Your task to perform on an android device: Do I have any events this weekend? Image 0: 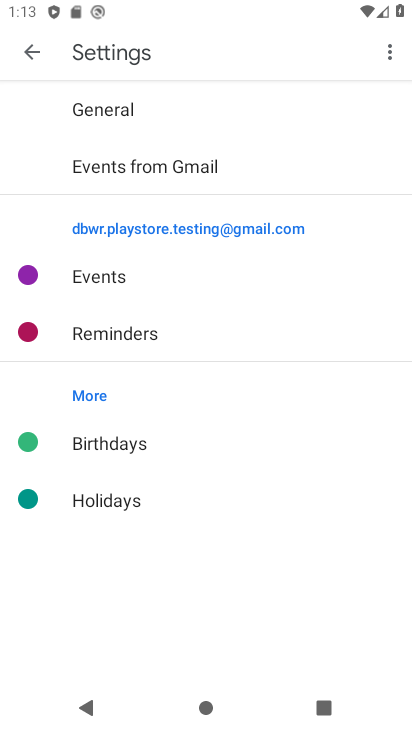
Step 0: press home button
Your task to perform on an android device: Do I have any events this weekend? Image 1: 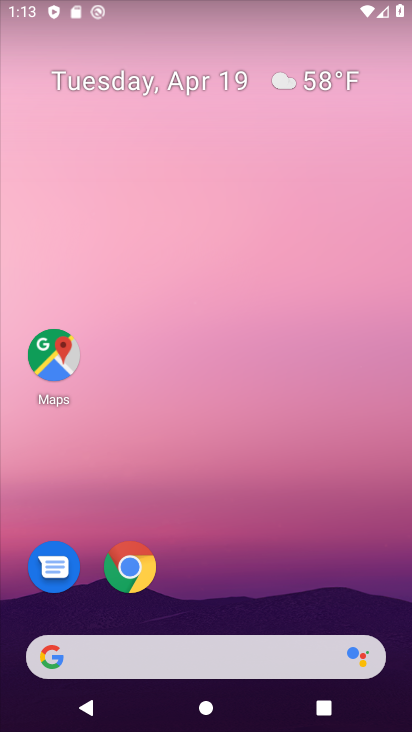
Step 1: drag from (397, 629) to (355, 102)
Your task to perform on an android device: Do I have any events this weekend? Image 2: 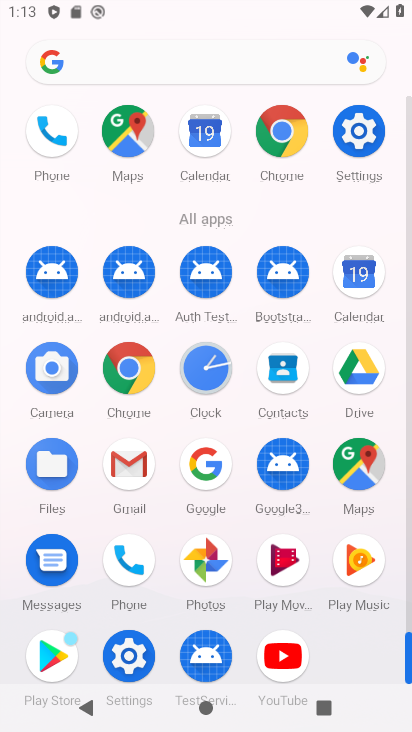
Step 2: click (127, 655)
Your task to perform on an android device: Do I have any events this weekend? Image 3: 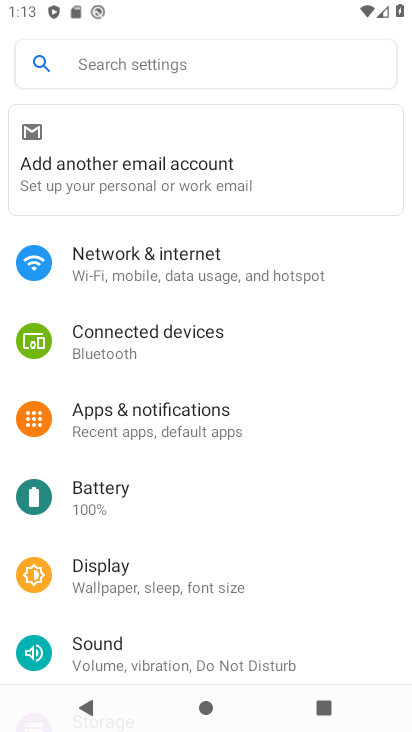
Step 3: press back button
Your task to perform on an android device: Do I have any events this weekend? Image 4: 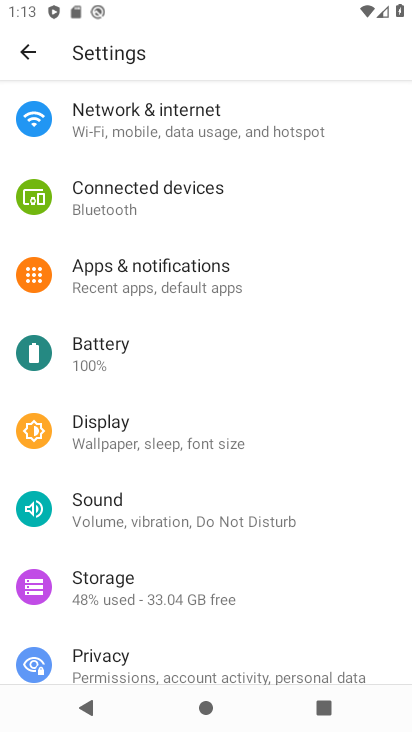
Step 4: press back button
Your task to perform on an android device: Do I have any events this weekend? Image 5: 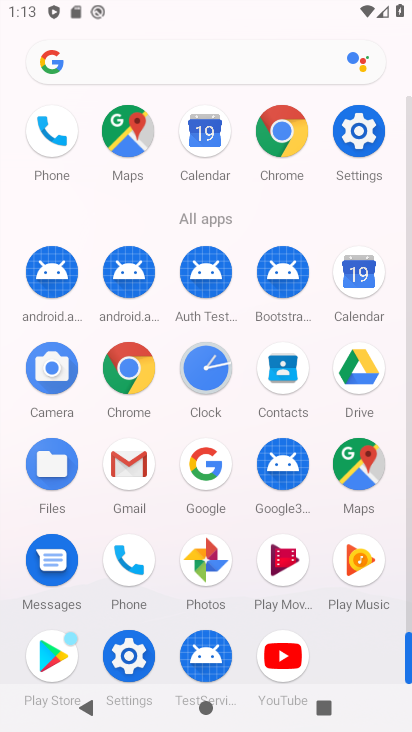
Step 5: click (354, 273)
Your task to perform on an android device: Do I have any events this weekend? Image 6: 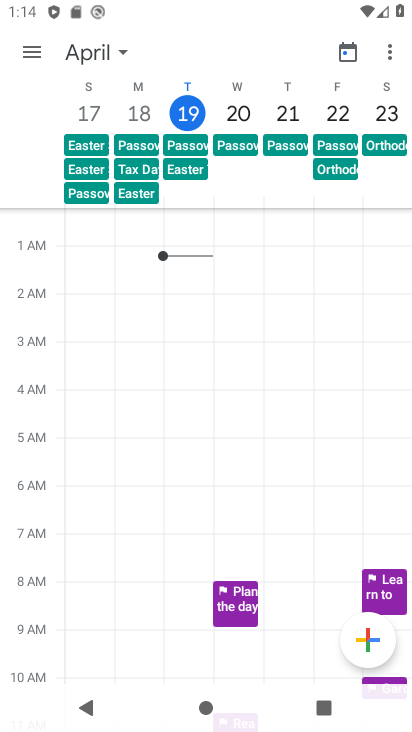
Step 6: task complete